Your task to perform on an android device: turn off translation in the chrome app Image 0: 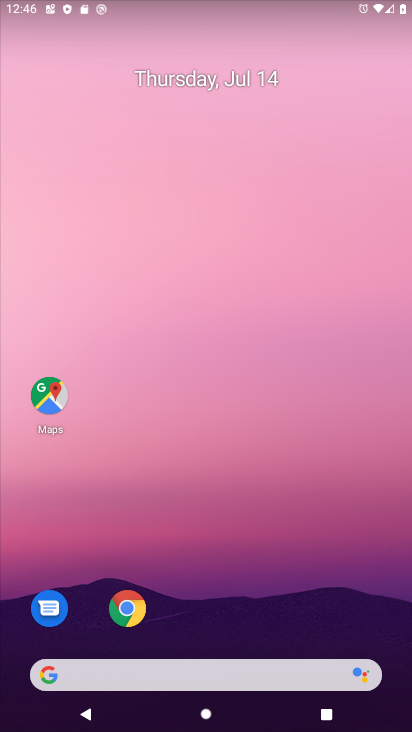
Step 0: click (125, 608)
Your task to perform on an android device: turn off translation in the chrome app Image 1: 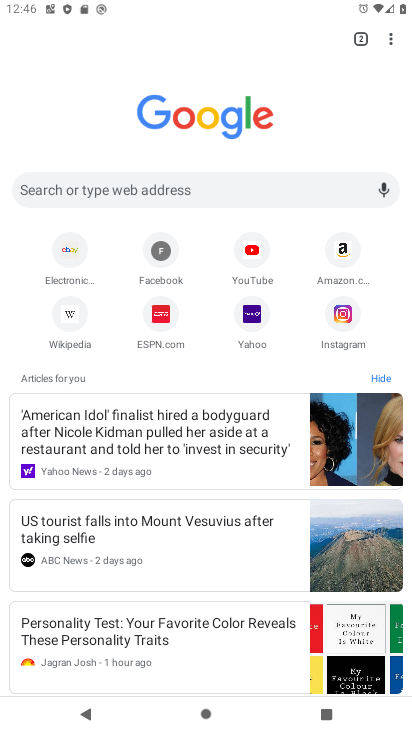
Step 1: click (391, 40)
Your task to perform on an android device: turn off translation in the chrome app Image 2: 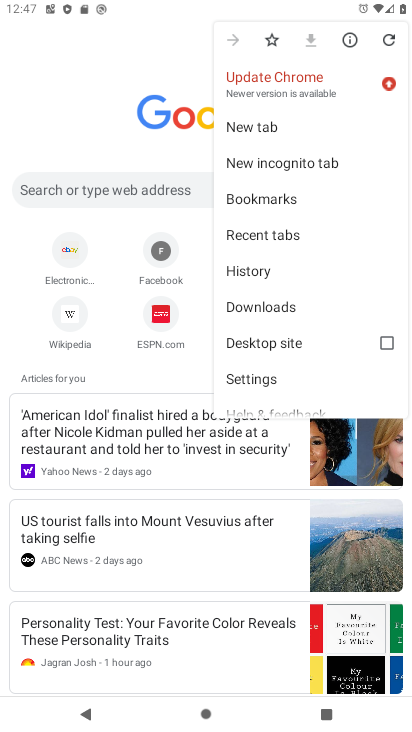
Step 2: click (267, 380)
Your task to perform on an android device: turn off translation in the chrome app Image 3: 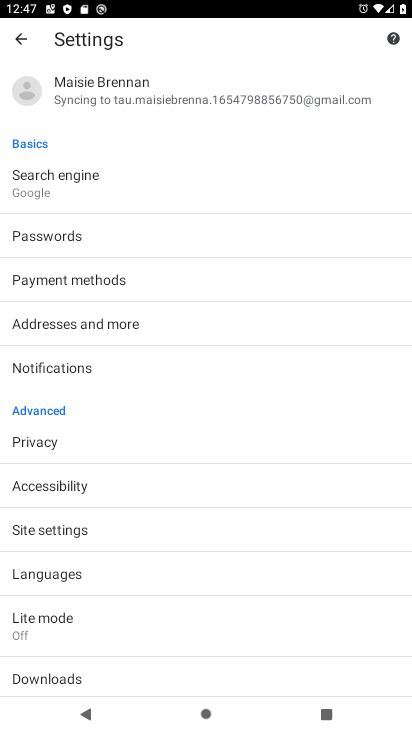
Step 3: click (63, 575)
Your task to perform on an android device: turn off translation in the chrome app Image 4: 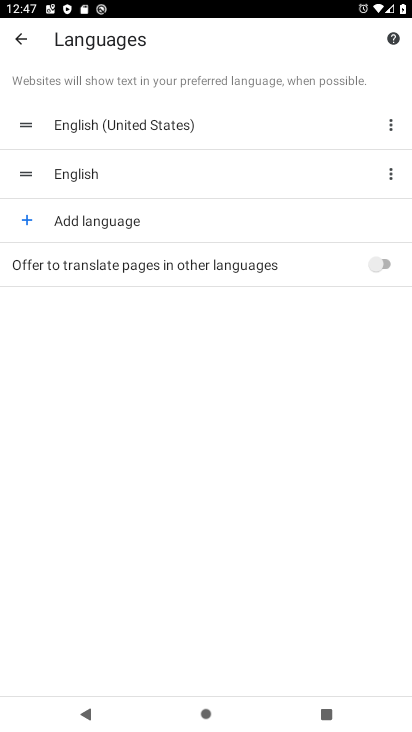
Step 4: task complete